Your task to perform on an android device: Open the calendar and show me this week's events? Image 0: 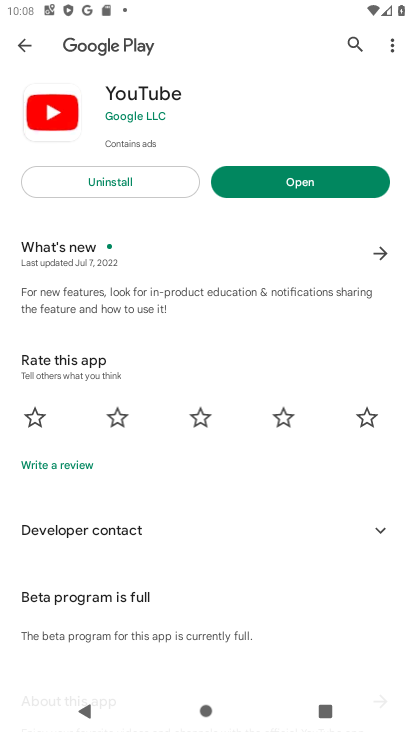
Step 0: press home button
Your task to perform on an android device: Open the calendar and show me this week's events? Image 1: 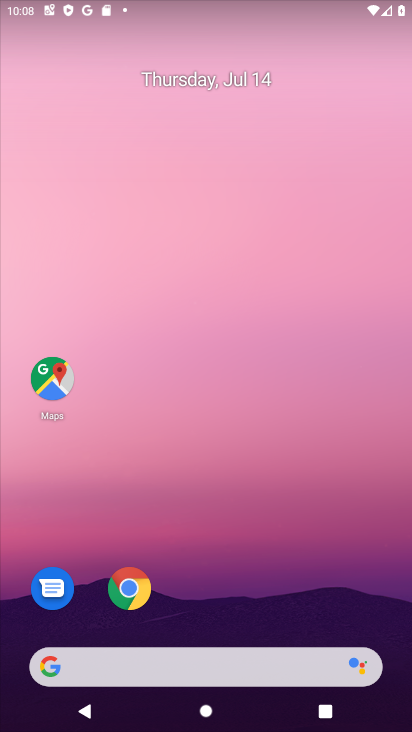
Step 1: drag from (184, 673) to (258, 158)
Your task to perform on an android device: Open the calendar and show me this week's events? Image 2: 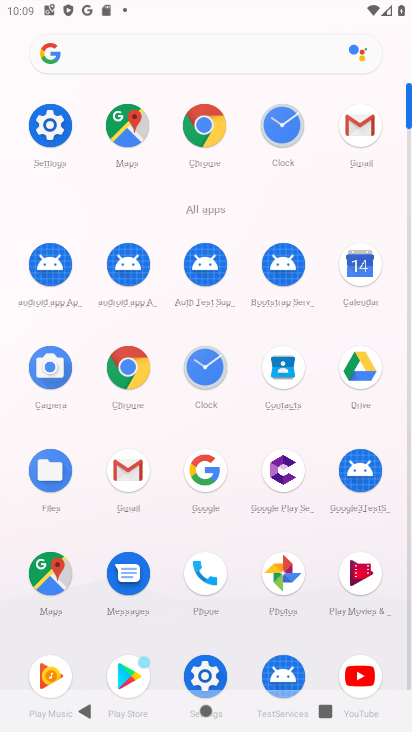
Step 2: click (352, 268)
Your task to perform on an android device: Open the calendar and show me this week's events? Image 3: 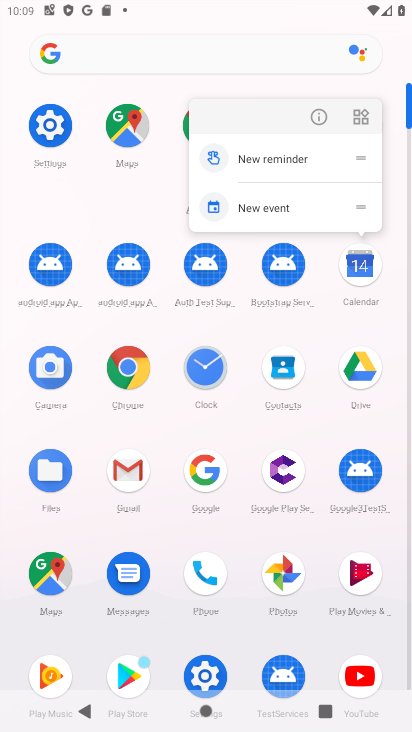
Step 3: click (352, 269)
Your task to perform on an android device: Open the calendar and show me this week's events? Image 4: 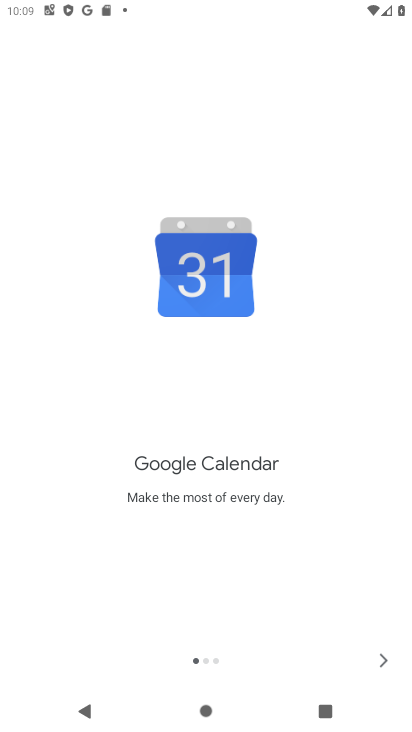
Step 4: click (384, 665)
Your task to perform on an android device: Open the calendar and show me this week's events? Image 5: 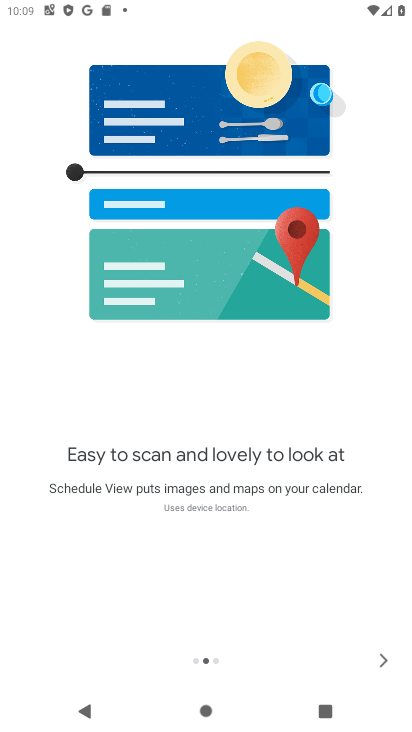
Step 5: click (384, 665)
Your task to perform on an android device: Open the calendar and show me this week's events? Image 6: 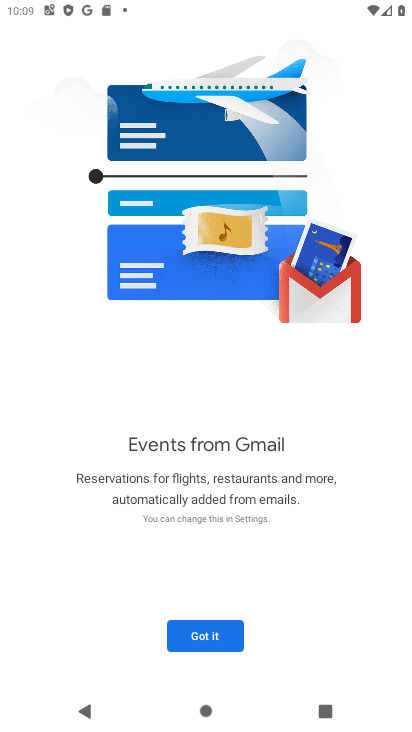
Step 6: click (206, 637)
Your task to perform on an android device: Open the calendar and show me this week's events? Image 7: 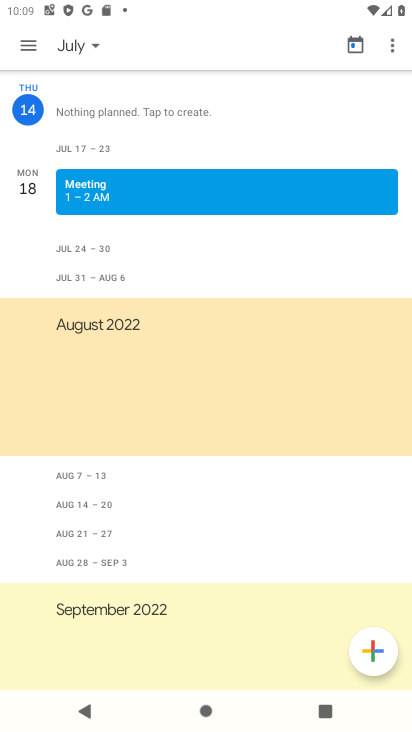
Step 7: click (73, 43)
Your task to perform on an android device: Open the calendar and show me this week's events? Image 8: 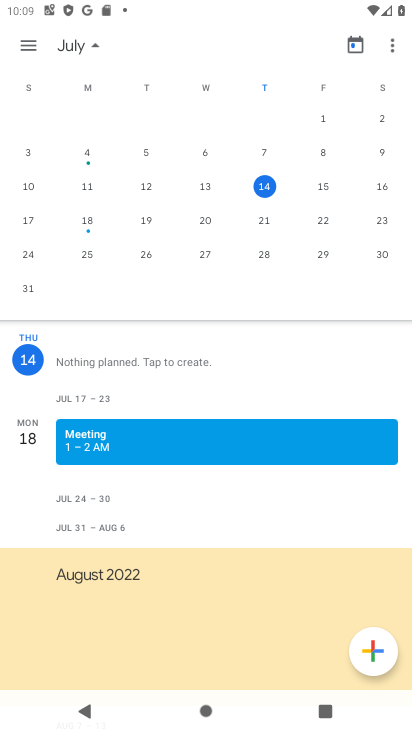
Step 8: click (258, 191)
Your task to perform on an android device: Open the calendar and show me this week's events? Image 9: 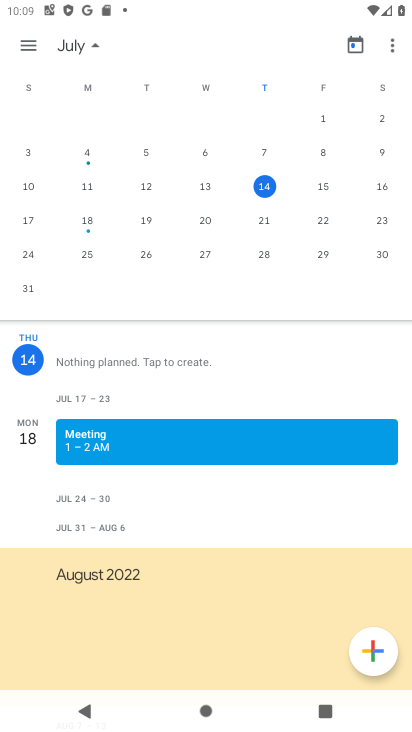
Step 9: click (33, 45)
Your task to perform on an android device: Open the calendar and show me this week's events? Image 10: 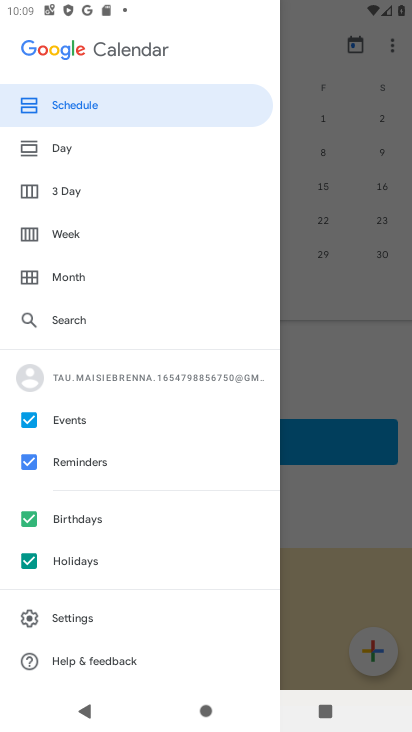
Step 10: click (80, 230)
Your task to perform on an android device: Open the calendar and show me this week's events? Image 11: 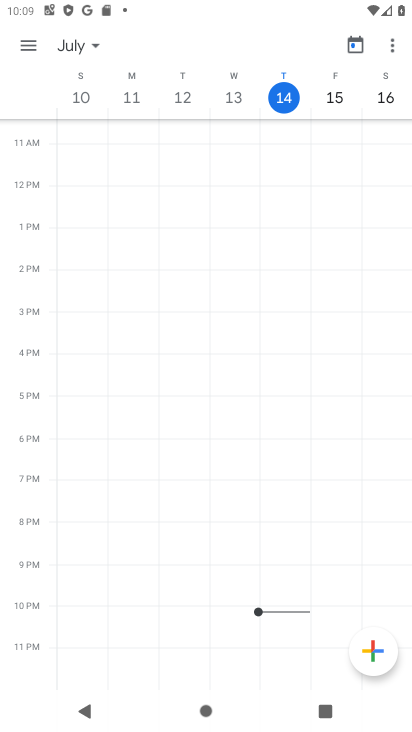
Step 11: click (21, 37)
Your task to perform on an android device: Open the calendar and show me this week's events? Image 12: 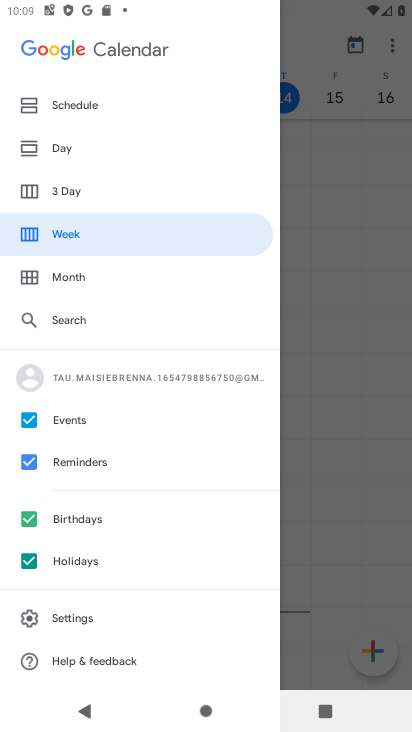
Step 12: click (96, 99)
Your task to perform on an android device: Open the calendar and show me this week's events? Image 13: 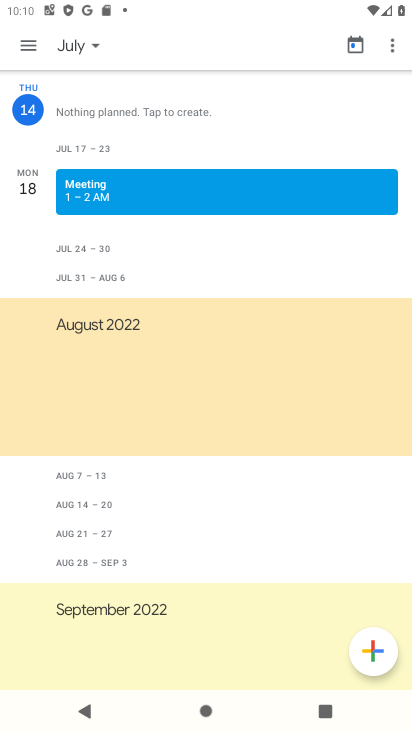
Step 13: task complete